Your task to perform on an android device: Show me popular videos on Youtube Image 0: 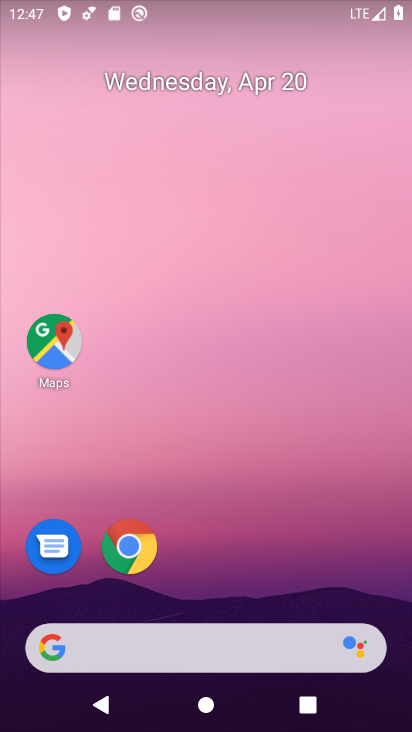
Step 0: drag from (194, 592) to (374, 108)
Your task to perform on an android device: Show me popular videos on Youtube Image 1: 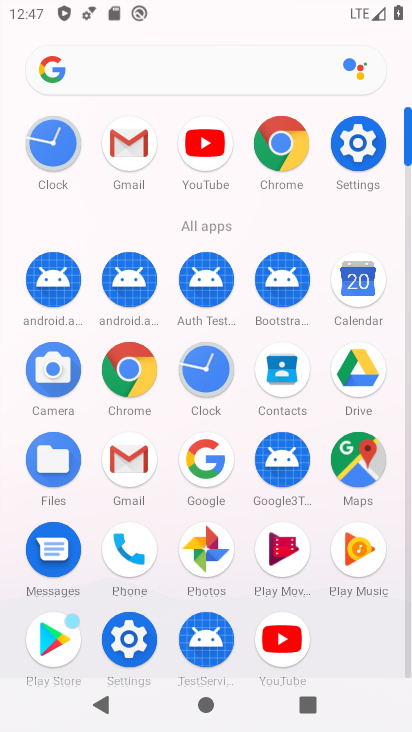
Step 1: click (219, 157)
Your task to perform on an android device: Show me popular videos on Youtube Image 2: 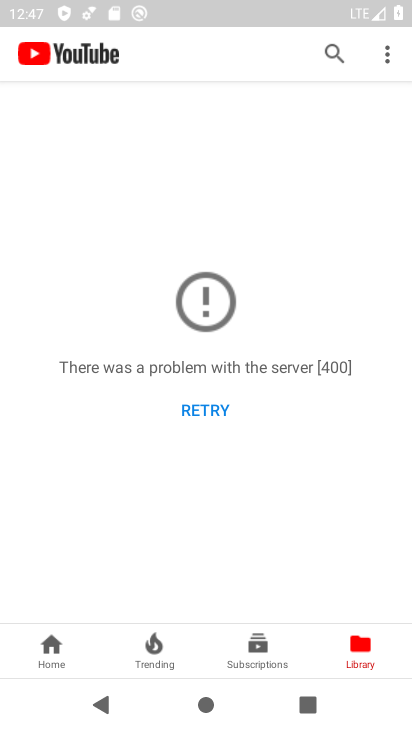
Step 2: click (132, 655)
Your task to perform on an android device: Show me popular videos on Youtube Image 3: 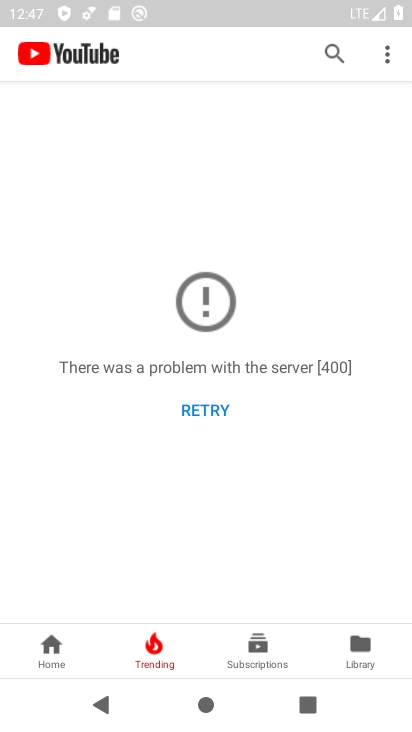
Step 3: task complete